Your task to perform on an android device: Open notification settings Image 0: 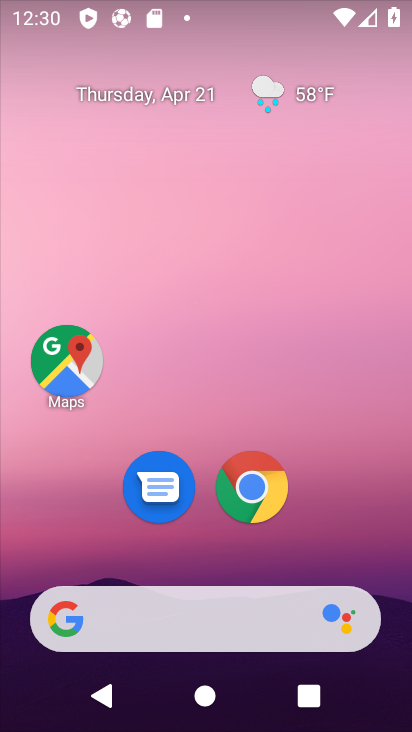
Step 0: drag from (377, 568) to (341, 3)
Your task to perform on an android device: Open notification settings Image 1: 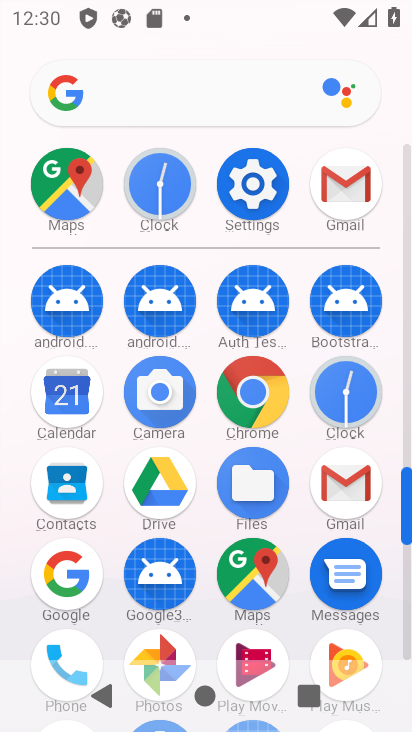
Step 1: click (247, 183)
Your task to perform on an android device: Open notification settings Image 2: 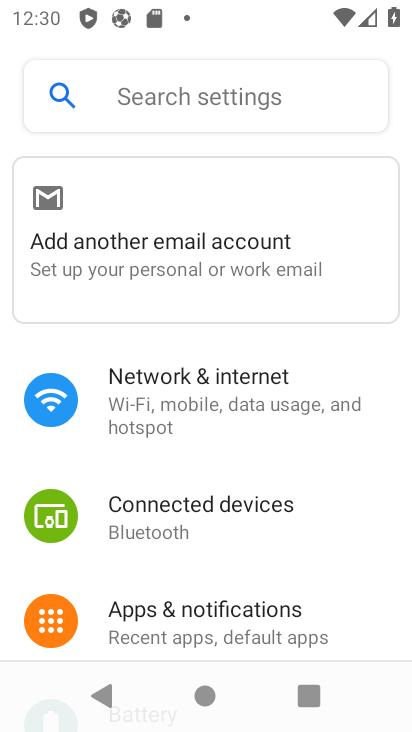
Step 2: click (205, 621)
Your task to perform on an android device: Open notification settings Image 3: 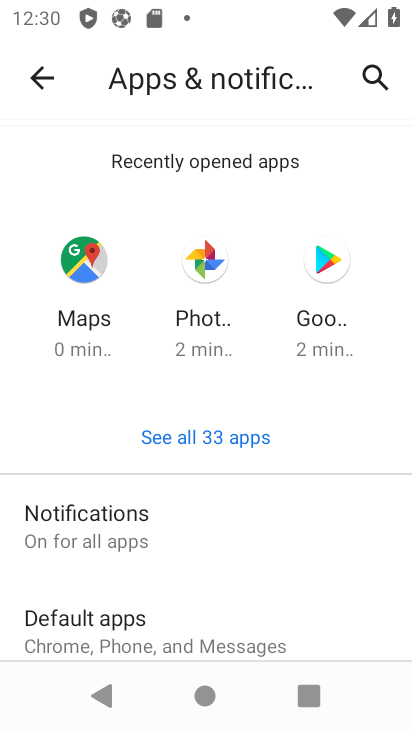
Step 3: task complete